Your task to perform on an android device: turn smart compose on in the gmail app Image 0: 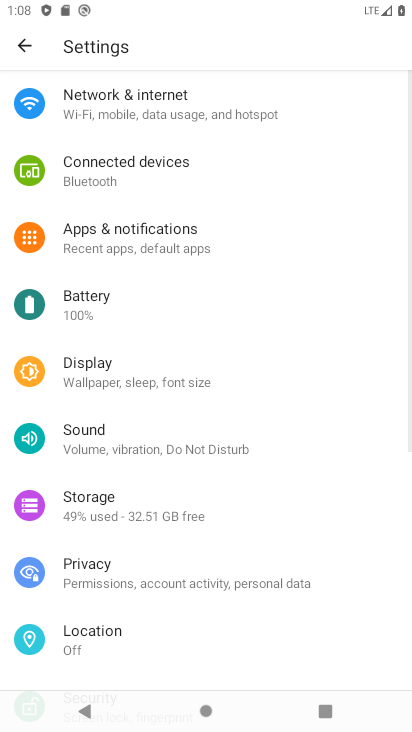
Step 0: press home button
Your task to perform on an android device: turn smart compose on in the gmail app Image 1: 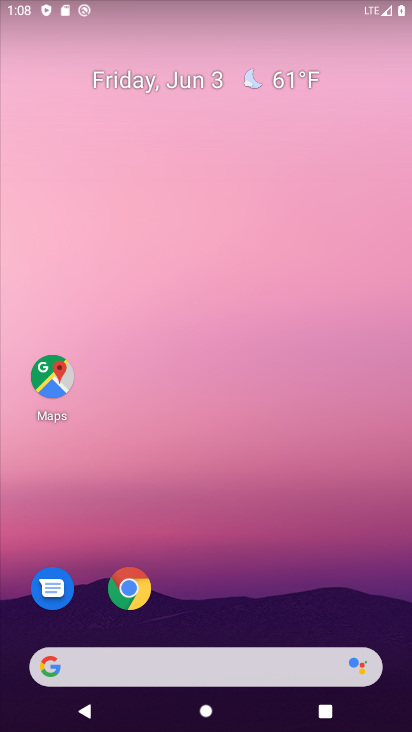
Step 1: drag from (19, 568) to (221, 177)
Your task to perform on an android device: turn smart compose on in the gmail app Image 2: 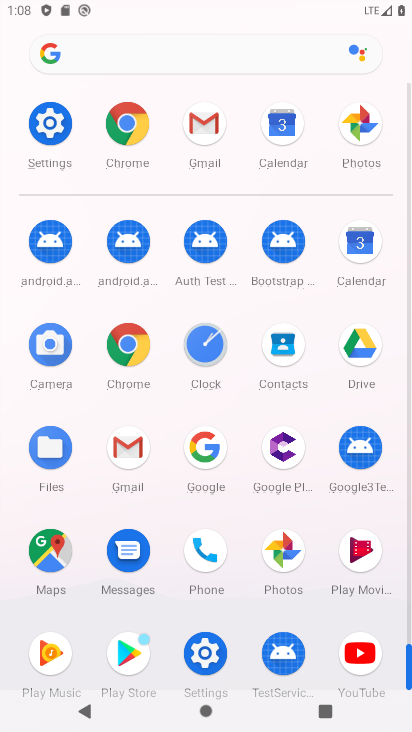
Step 2: click (127, 440)
Your task to perform on an android device: turn smart compose on in the gmail app Image 3: 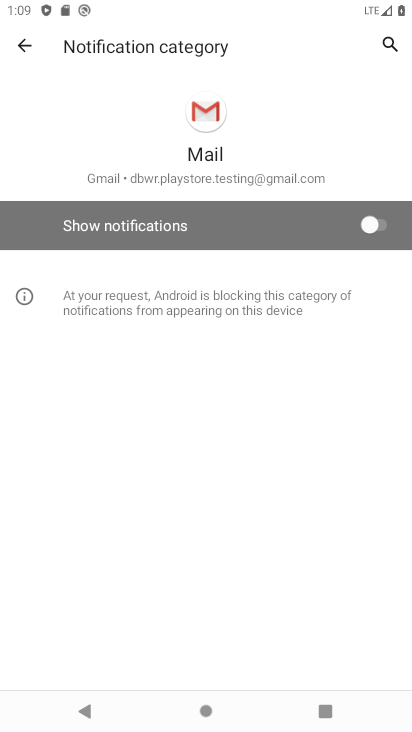
Step 3: press back button
Your task to perform on an android device: turn smart compose on in the gmail app Image 4: 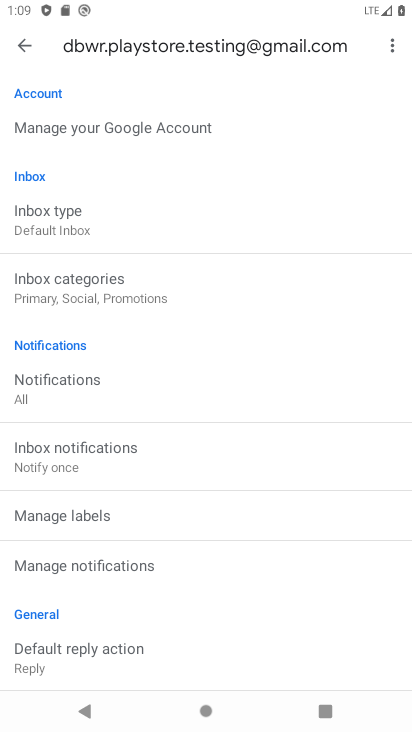
Step 4: click (206, 189)
Your task to perform on an android device: turn smart compose on in the gmail app Image 5: 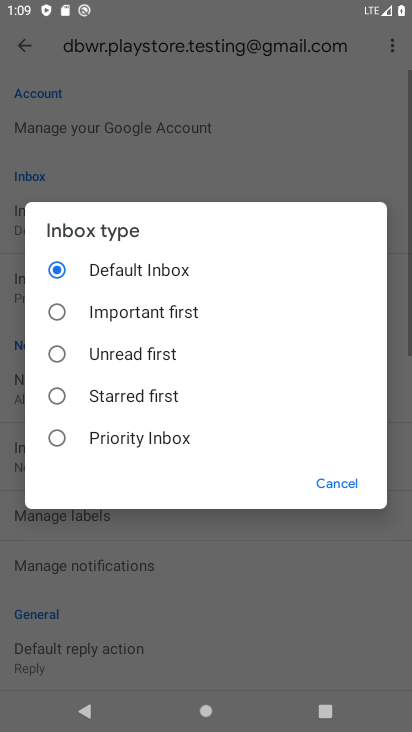
Step 5: task complete